Your task to perform on an android device: delete the emails in spam in the gmail app Image 0: 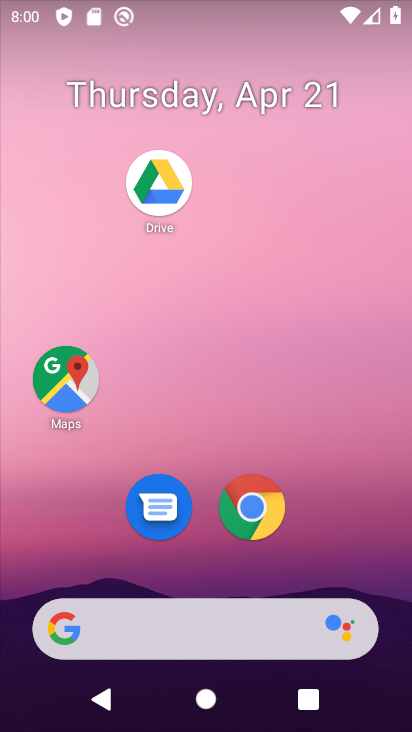
Step 0: drag from (381, 512) to (395, 90)
Your task to perform on an android device: delete the emails in spam in the gmail app Image 1: 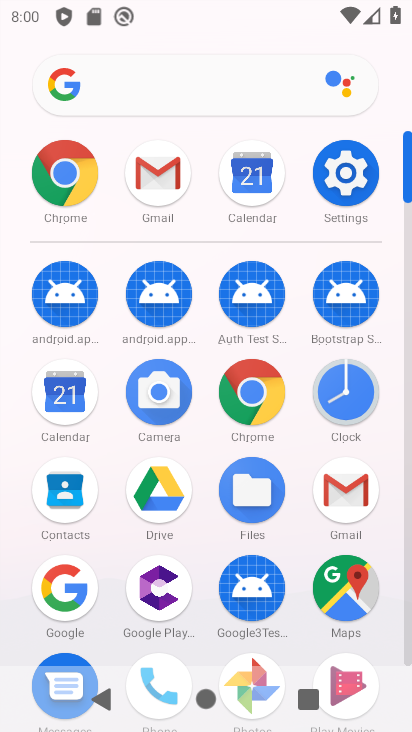
Step 1: click (349, 489)
Your task to perform on an android device: delete the emails in spam in the gmail app Image 2: 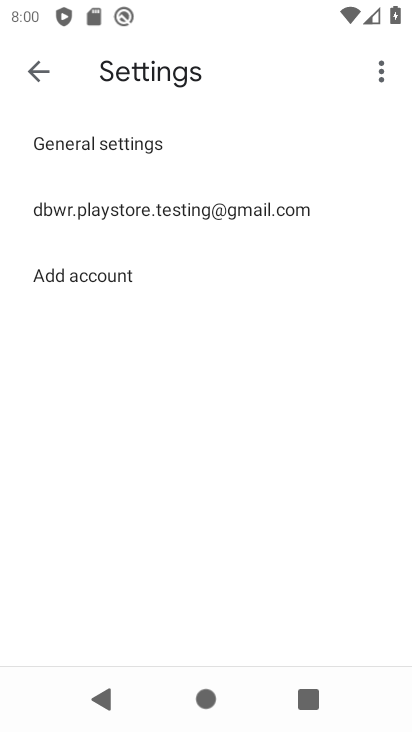
Step 2: click (30, 76)
Your task to perform on an android device: delete the emails in spam in the gmail app Image 3: 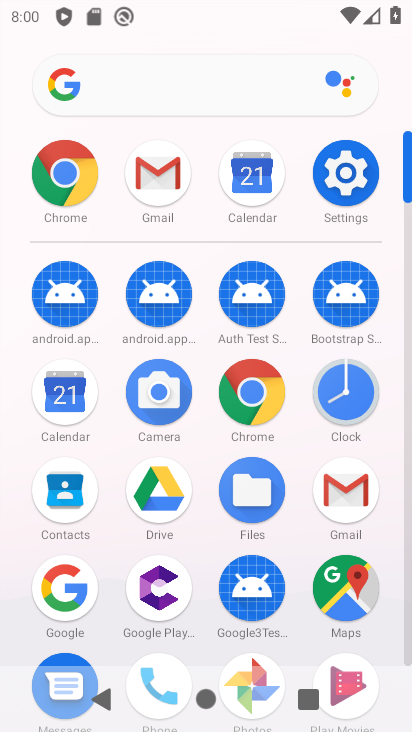
Step 3: click (346, 499)
Your task to perform on an android device: delete the emails in spam in the gmail app Image 4: 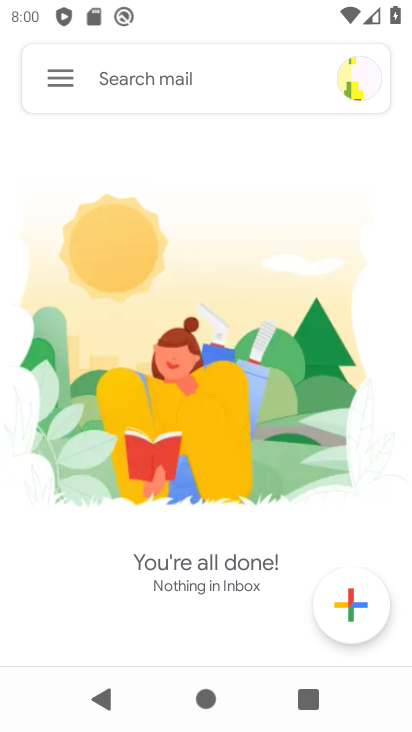
Step 4: click (69, 72)
Your task to perform on an android device: delete the emails in spam in the gmail app Image 5: 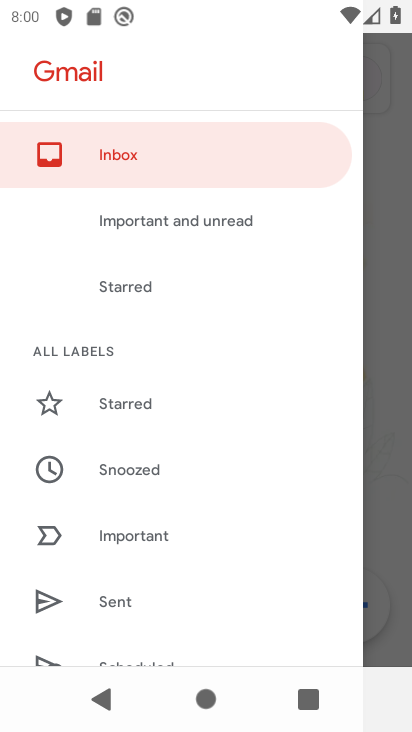
Step 5: drag from (290, 519) to (290, 356)
Your task to perform on an android device: delete the emails in spam in the gmail app Image 6: 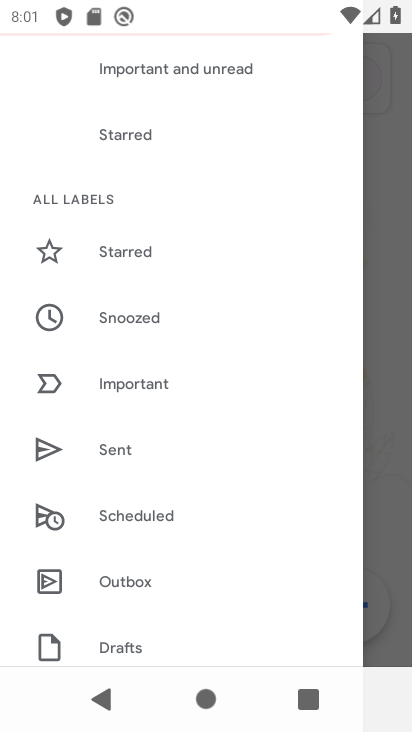
Step 6: drag from (297, 584) to (304, 362)
Your task to perform on an android device: delete the emails in spam in the gmail app Image 7: 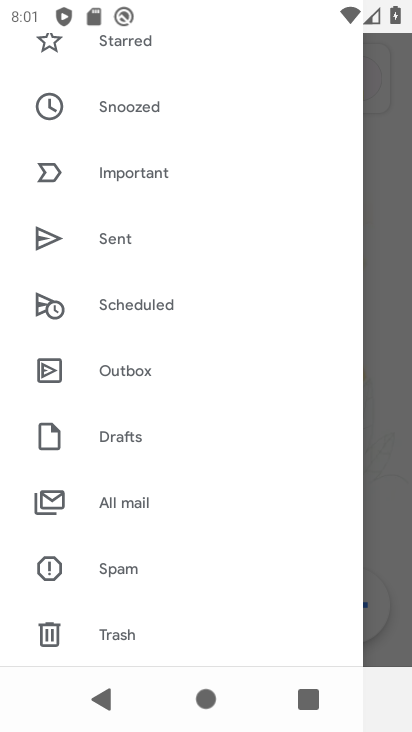
Step 7: drag from (281, 566) to (293, 312)
Your task to perform on an android device: delete the emails in spam in the gmail app Image 8: 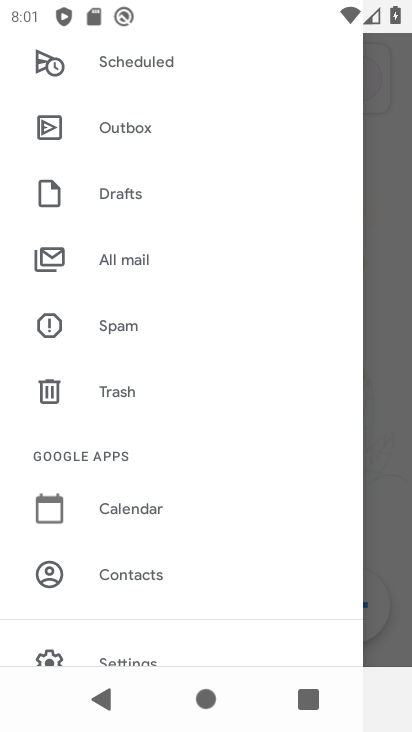
Step 8: drag from (291, 569) to (300, 397)
Your task to perform on an android device: delete the emails in spam in the gmail app Image 9: 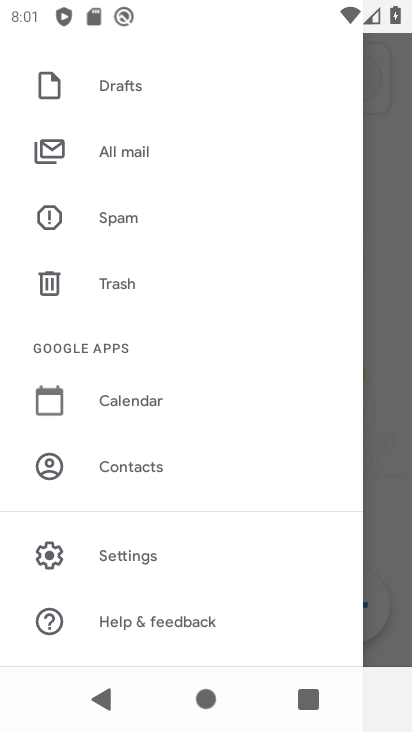
Step 9: drag from (297, 250) to (280, 403)
Your task to perform on an android device: delete the emails in spam in the gmail app Image 10: 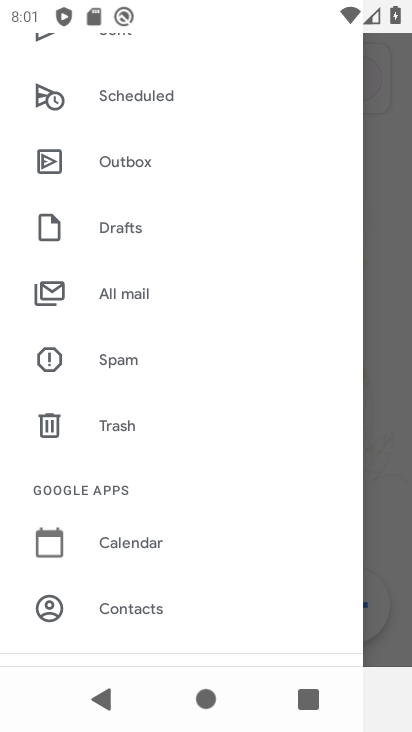
Step 10: drag from (286, 334) to (277, 498)
Your task to perform on an android device: delete the emails in spam in the gmail app Image 11: 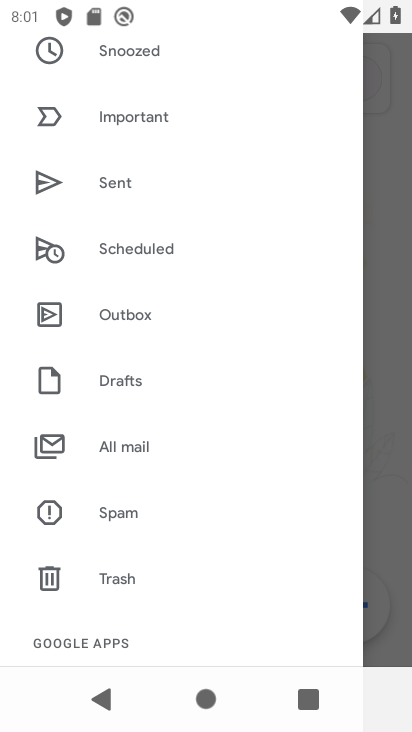
Step 11: drag from (285, 351) to (290, 452)
Your task to perform on an android device: delete the emails in spam in the gmail app Image 12: 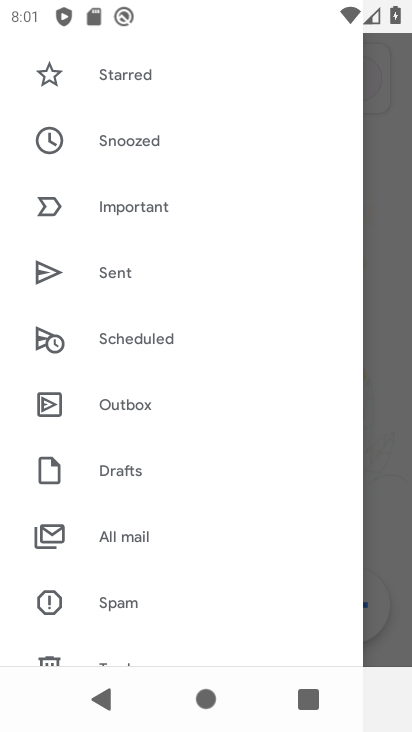
Step 12: drag from (278, 236) to (272, 447)
Your task to perform on an android device: delete the emails in spam in the gmail app Image 13: 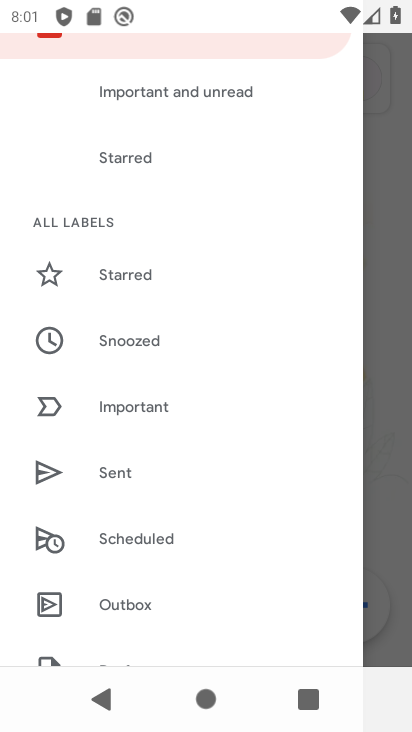
Step 13: drag from (293, 239) to (292, 399)
Your task to perform on an android device: delete the emails in spam in the gmail app Image 14: 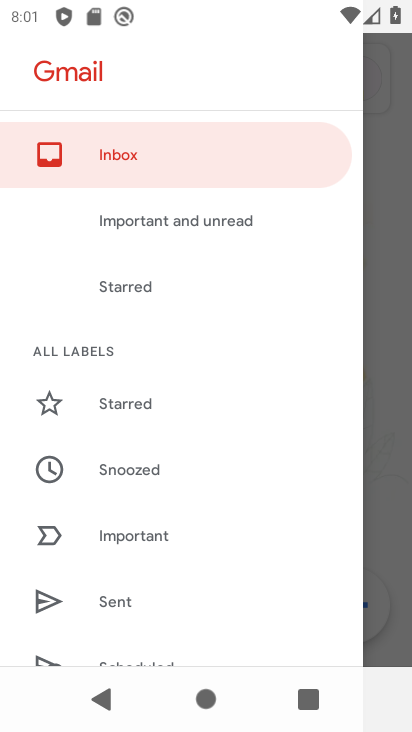
Step 14: click (196, 168)
Your task to perform on an android device: delete the emails in spam in the gmail app Image 15: 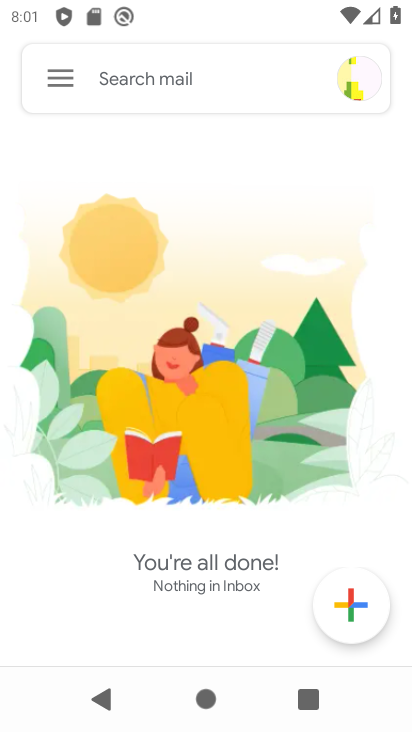
Step 15: task complete